Your task to perform on an android device: open app "Microsoft Authenticator" (install if not already installed) and go to login screen Image 0: 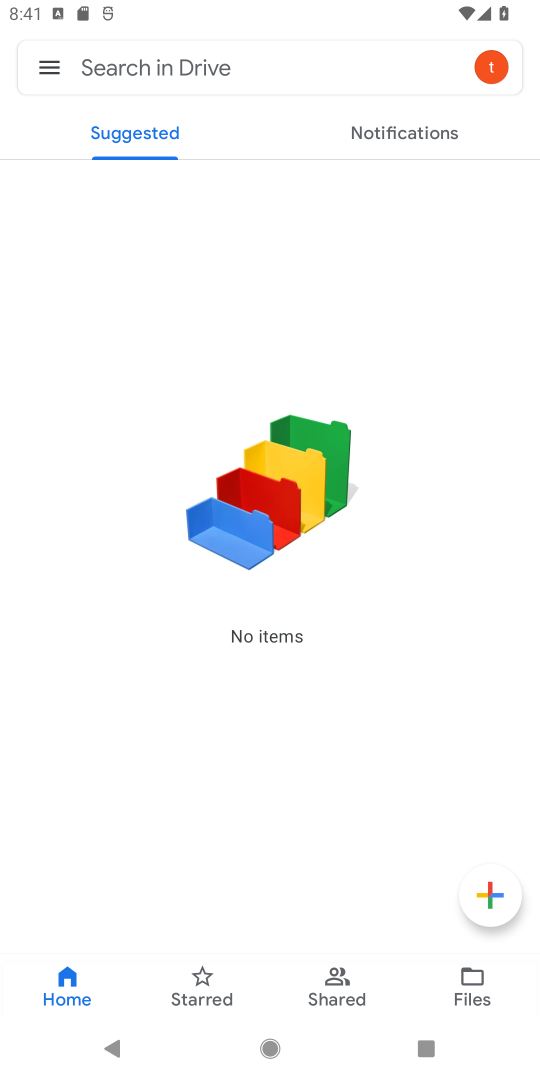
Step 0: press home button
Your task to perform on an android device: open app "Microsoft Authenticator" (install if not already installed) and go to login screen Image 1: 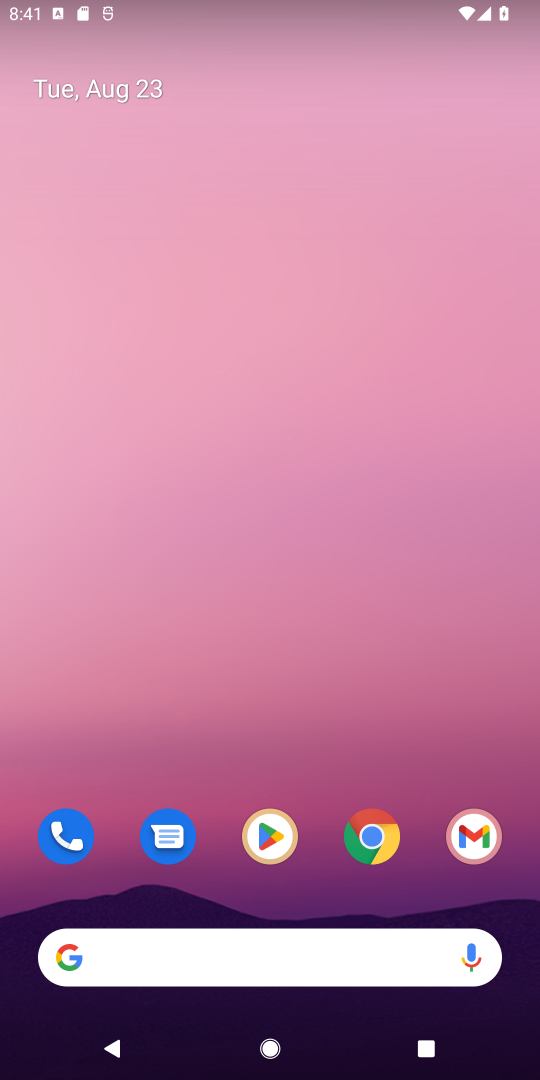
Step 1: click (264, 843)
Your task to perform on an android device: open app "Microsoft Authenticator" (install if not already installed) and go to login screen Image 2: 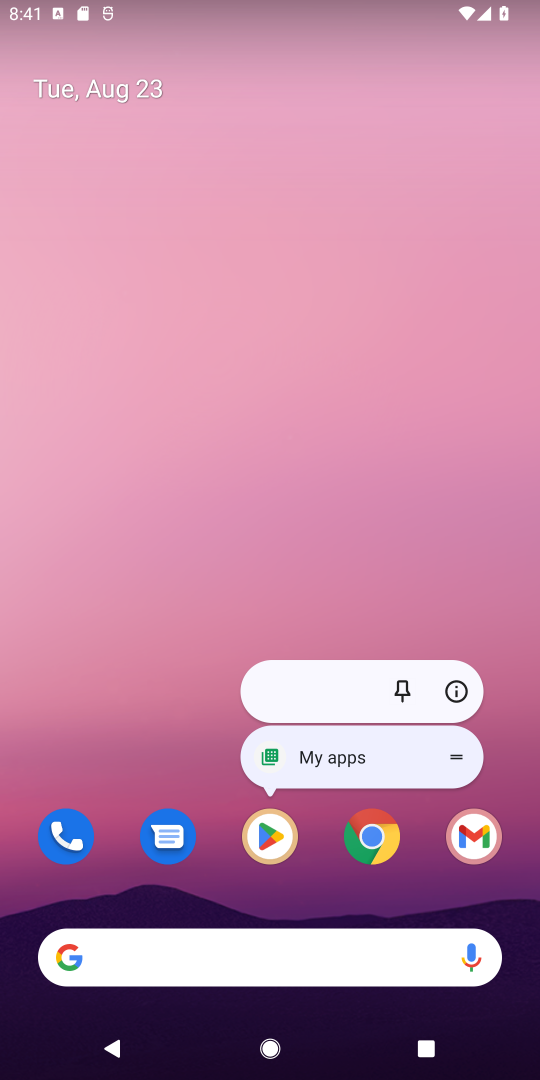
Step 2: click (268, 839)
Your task to perform on an android device: open app "Microsoft Authenticator" (install if not already installed) and go to login screen Image 3: 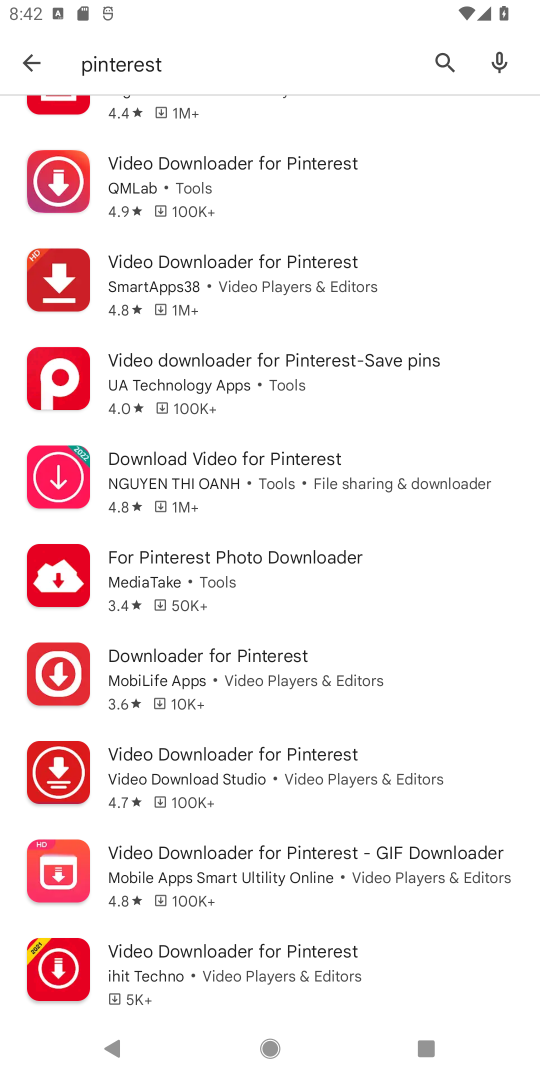
Step 3: click (443, 53)
Your task to perform on an android device: open app "Microsoft Authenticator" (install if not already installed) and go to login screen Image 4: 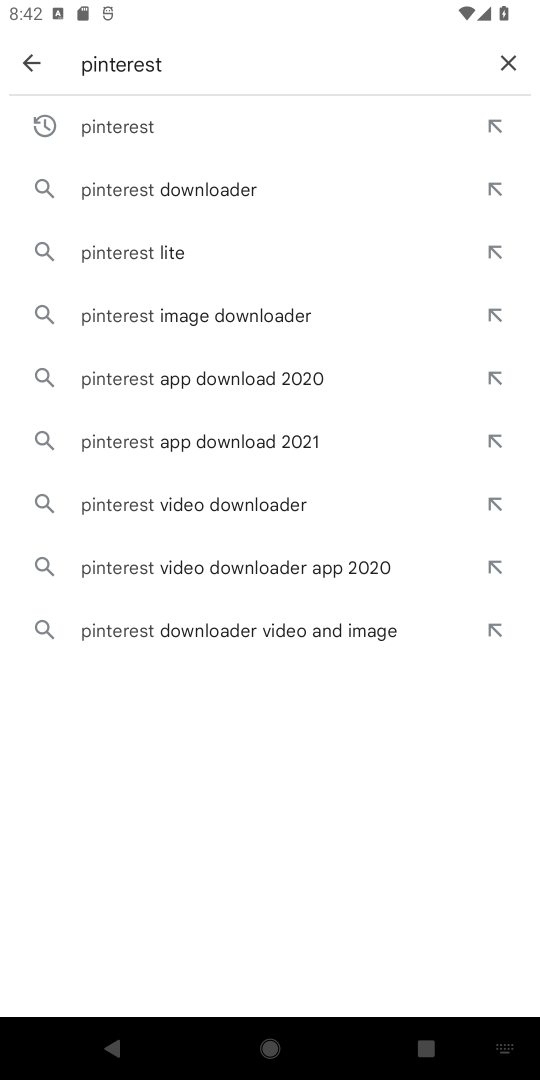
Step 4: click (506, 56)
Your task to perform on an android device: open app "Microsoft Authenticator" (install if not already installed) and go to login screen Image 5: 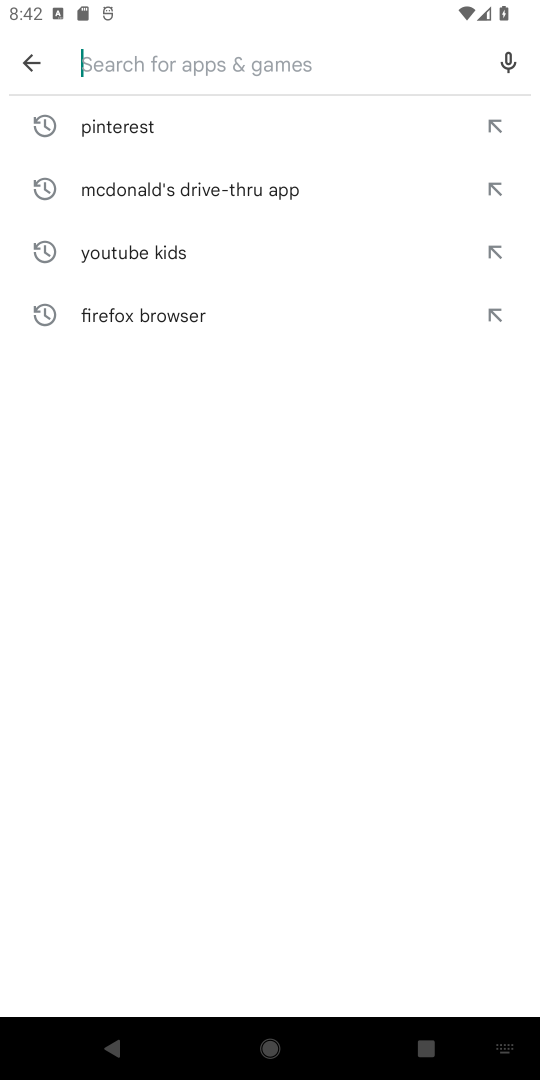
Step 5: type "Microsoft Authenticator"
Your task to perform on an android device: open app "Microsoft Authenticator" (install if not already installed) and go to login screen Image 6: 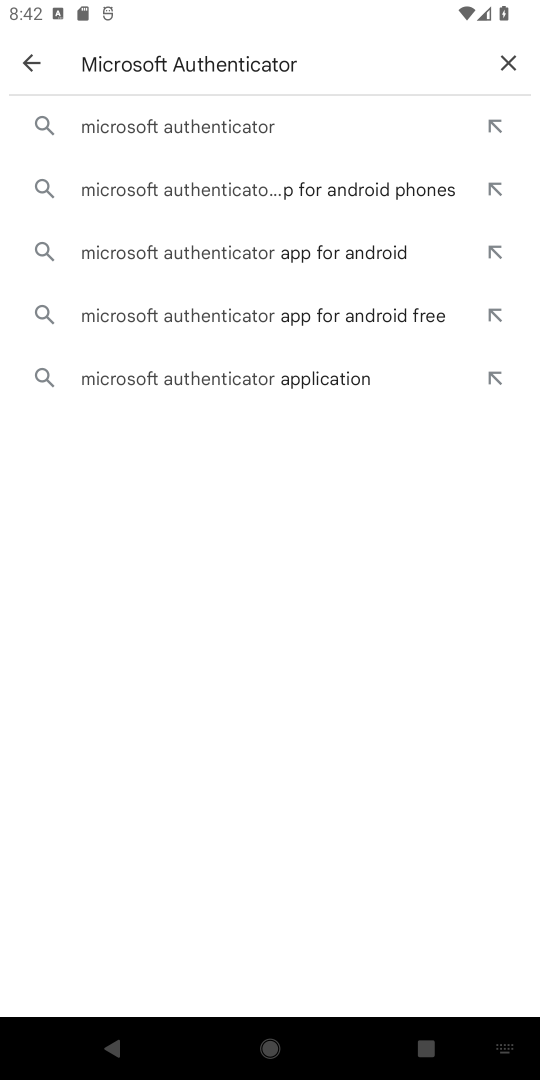
Step 6: click (138, 117)
Your task to perform on an android device: open app "Microsoft Authenticator" (install if not already installed) and go to login screen Image 7: 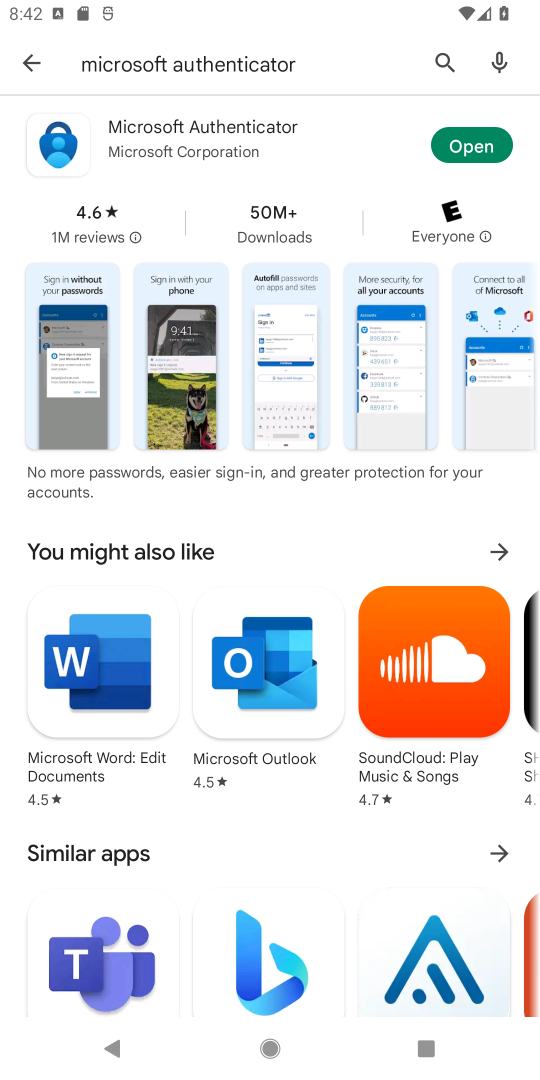
Step 7: click (481, 134)
Your task to perform on an android device: open app "Microsoft Authenticator" (install if not already installed) and go to login screen Image 8: 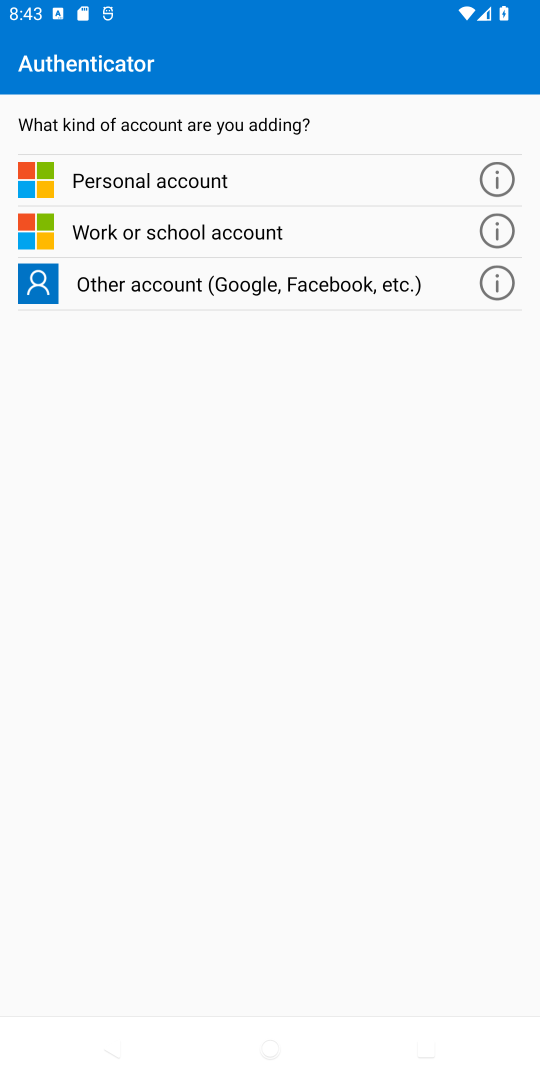
Step 8: task complete